Your task to perform on an android device: check google app version Image 0: 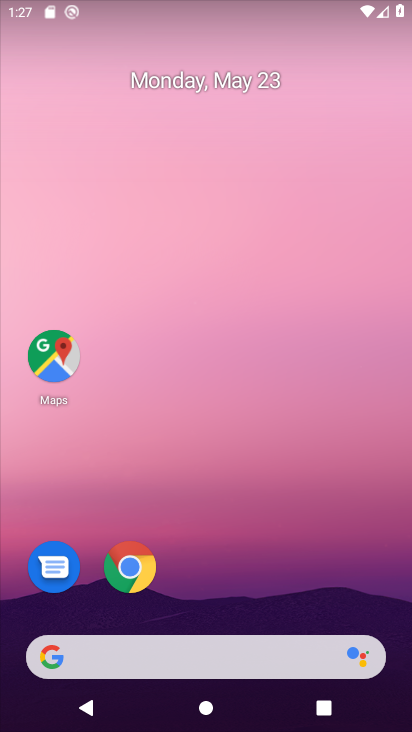
Step 0: drag from (243, 614) to (281, 88)
Your task to perform on an android device: check google app version Image 1: 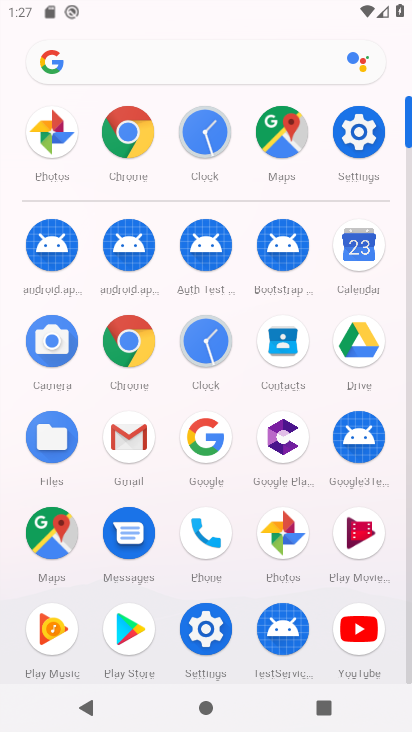
Step 1: click (207, 456)
Your task to perform on an android device: check google app version Image 2: 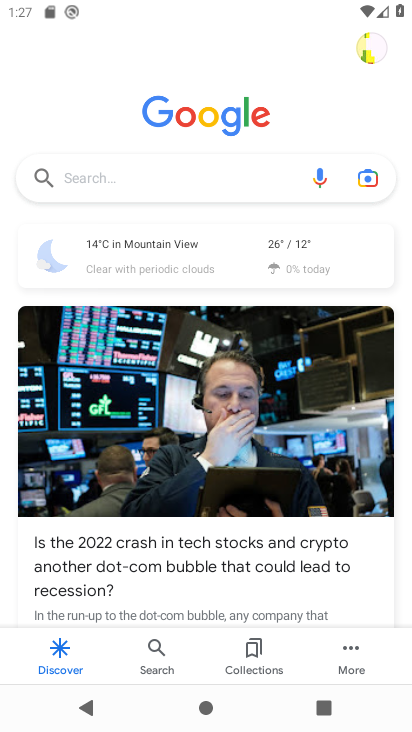
Step 2: click (357, 669)
Your task to perform on an android device: check google app version Image 3: 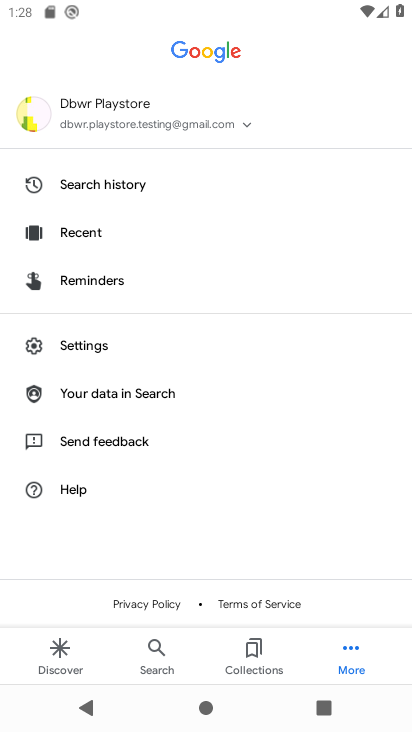
Step 3: click (121, 345)
Your task to perform on an android device: check google app version Image 4: 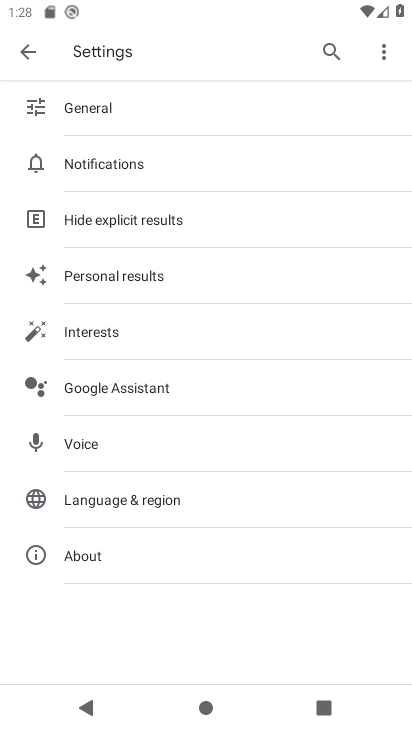
Step 4: click (76, 558)
Your task to perform on an android device: check google app version Image 5: 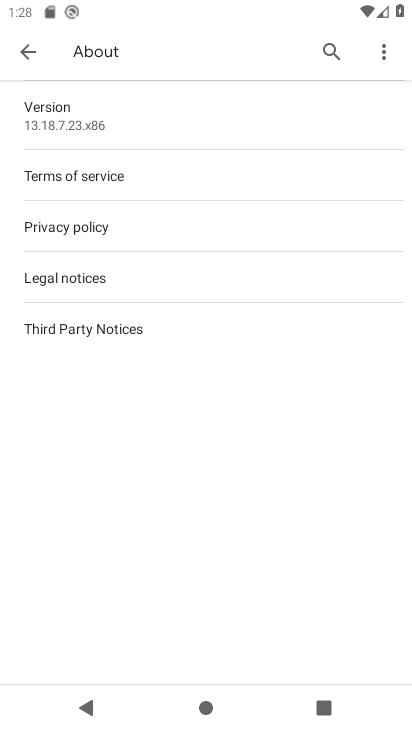
Step 5: click (114, 125)
Your task to perform on an android device: check google app version Image 6: 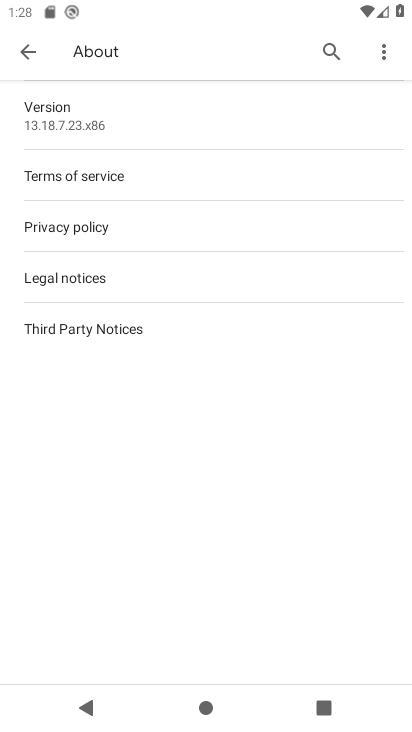
Step 6: task complete